Your task to perform on an android device: Go to display settings Image 0: 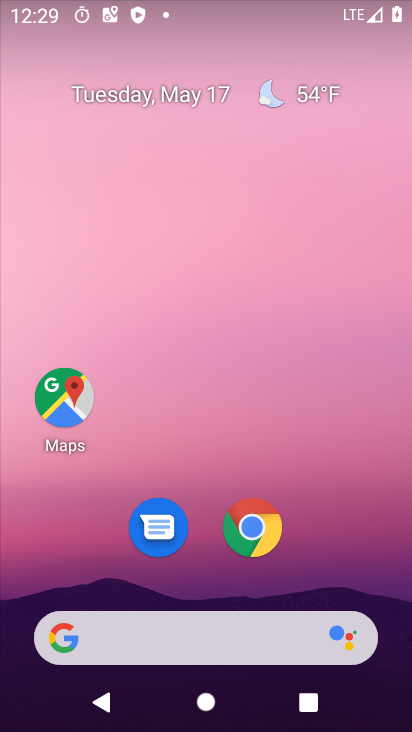
Step 0: drag from (296, 649) to (246, 254)
Your task to perform on an android device: Go to display settings Image 1: 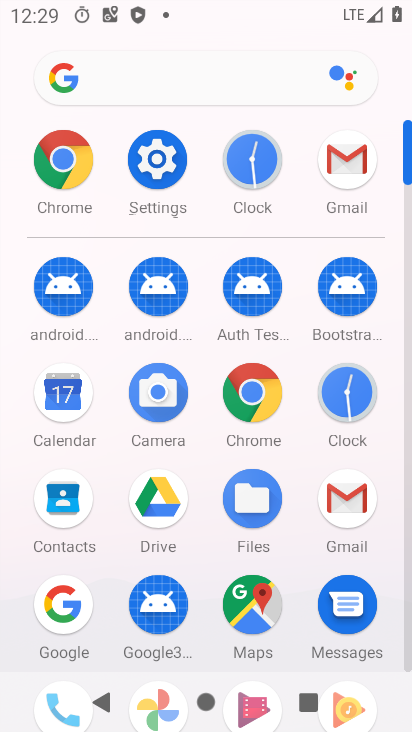
Step 1: click (173, 169)
Your task to perform on an android device: Go to display settings Image 2: 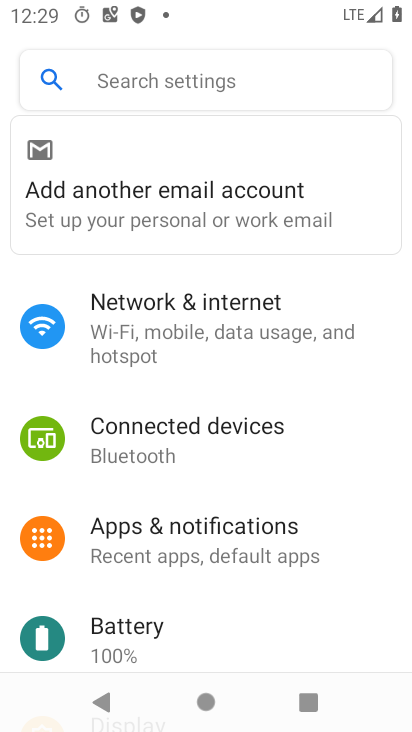
Step 2: click (189, 81)
Your task to perform on an android device: Go to display settings Image 3: 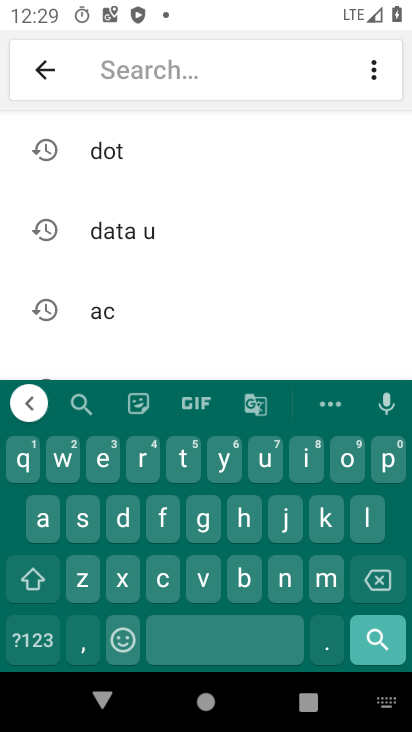
Step 3: click (46, 66)
Your task to perform on an android device: Go to display settings Image 4: 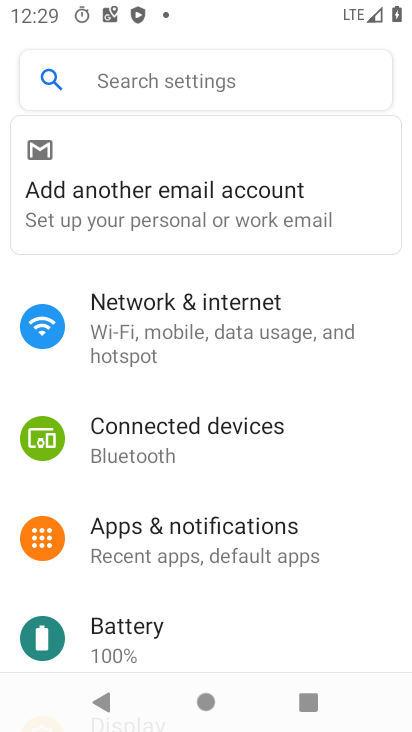
Step 4: drag from (184, 554) to (229, 279)
Your task to perform on an android device: Go to display settings Image 5: 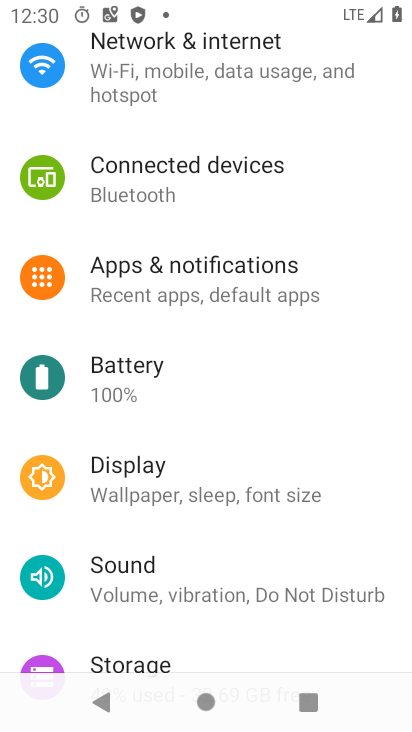
Step 5: click (157, 474)
Your task to perform on an android device: Go to display settings Image 6: 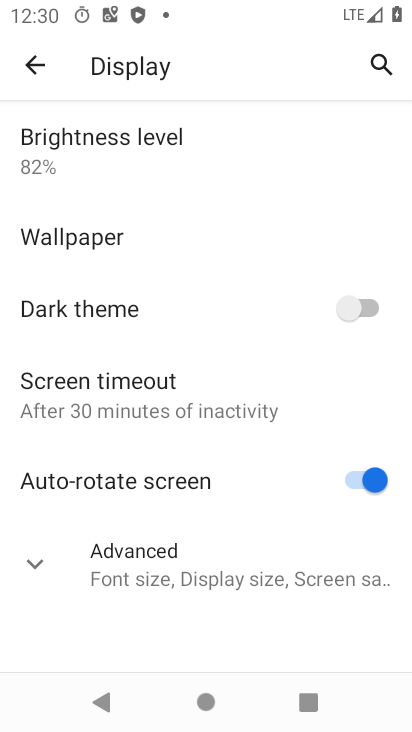
Step 6: task complete